Your task to perform on an android device: Search for vegetarian restaurants on Maps Image 0: 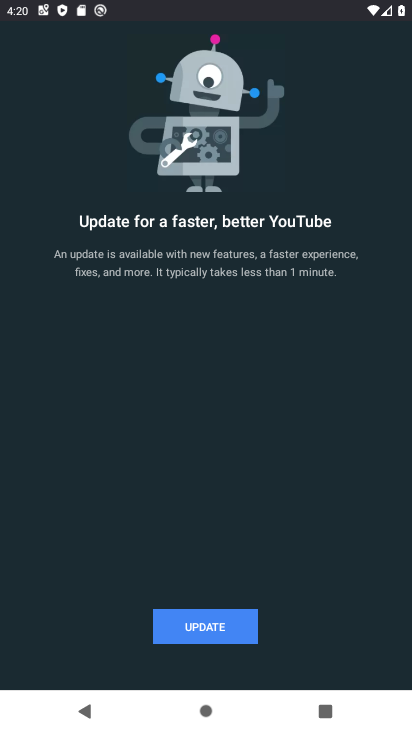
Step 0: press back button
Your task to perform on an android device: Search for vegetarian restaurants on Maps Image 1: 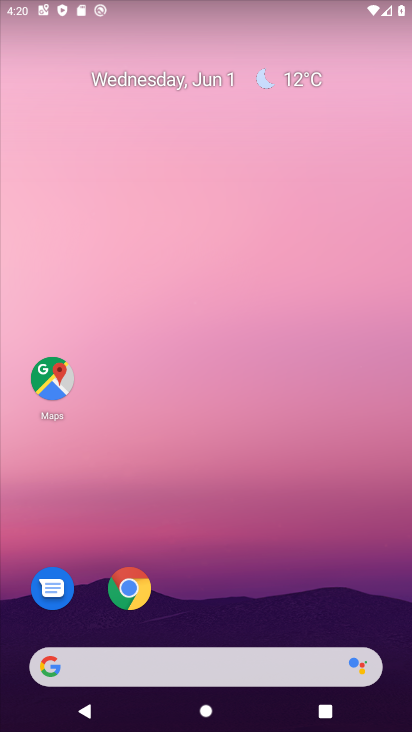
Step 1: click (55, 383)
Your task to perform on an android device: Search for vegetarian restaurants on Maps Image 2: 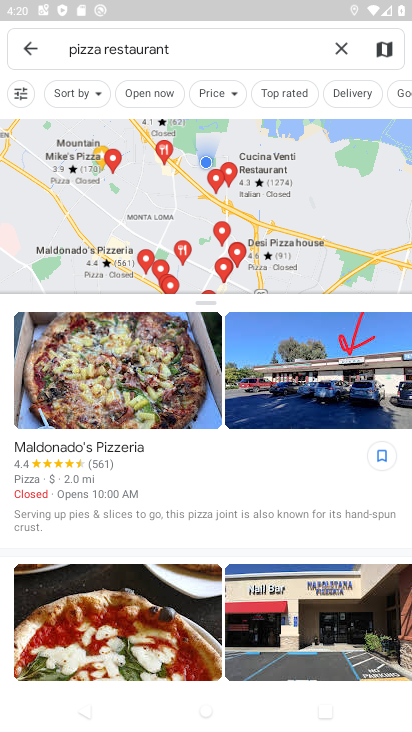
Step 2: click (344, 43)
Your task to perform on an android device: Search for vegetarian restaurants on Maps Image 3: 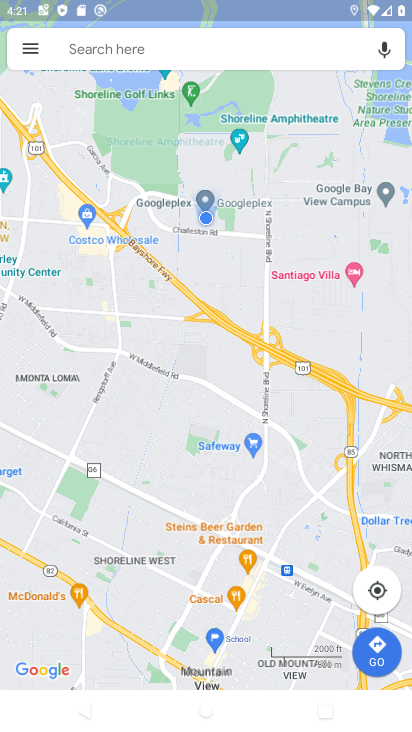
Step 3: click (174, 52)
Your task to perform on an android device: Search for vegetarian restaurants on Maps Image 4: 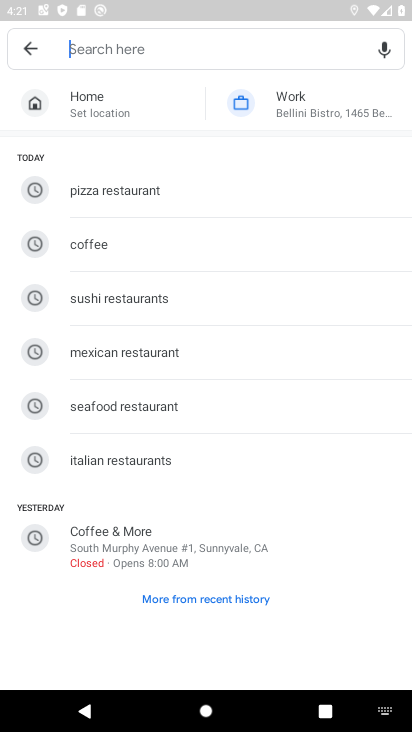
Step 4: type "vegetarian restaurants"
Your task to perform on an android device: Search for vegetarian restaurants on Maps Image 5: 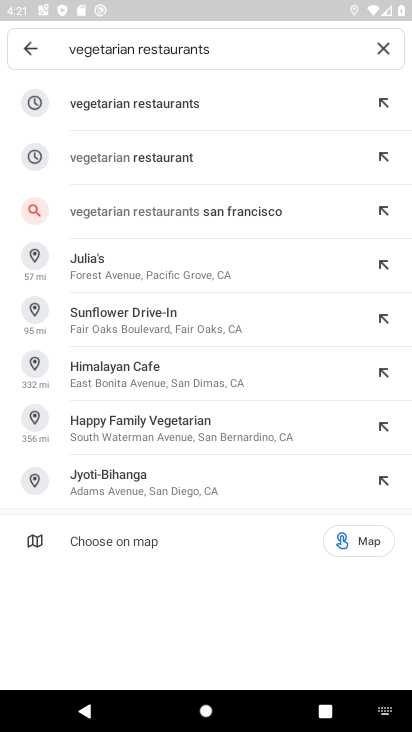
Step 5: click (178, 108)
Your task to perform on an android device: Search for vegetarian restaurants on Maps Image 6: 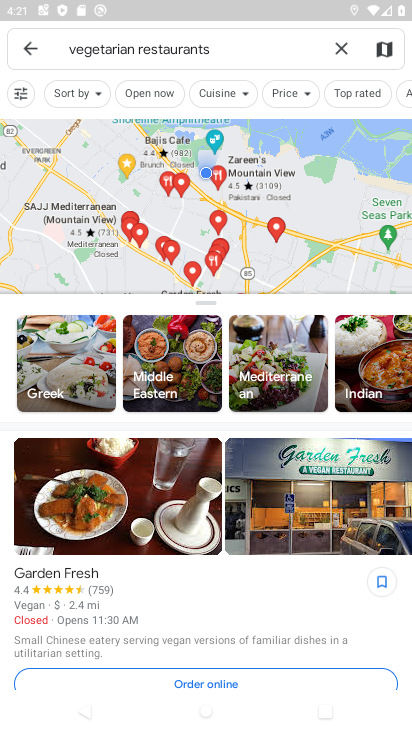
Step 6: task complete